Your task to perform on an android device: clear history in the chrome app Image 0: 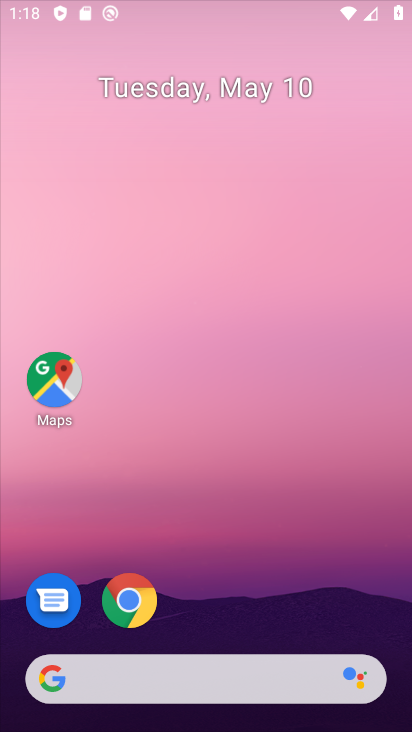
Step 0: drag from (268, 698) to (347, 222)
Your task to perform on an android device: clear history in the chrome app Image 1: 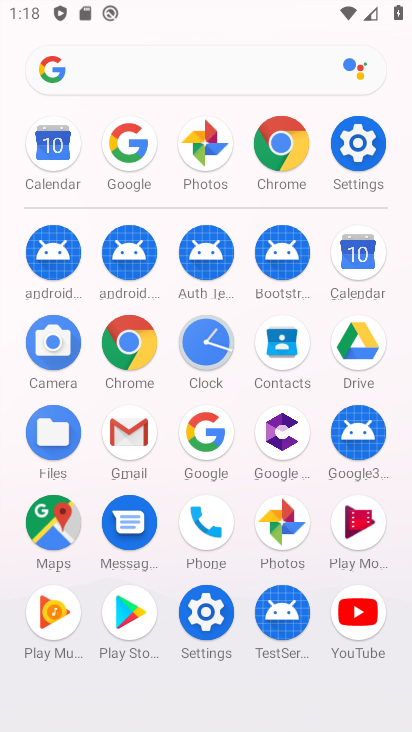
Step 1: click (297, 177)
Your task to perform on an android device: clear history in the chrome app Image 2: 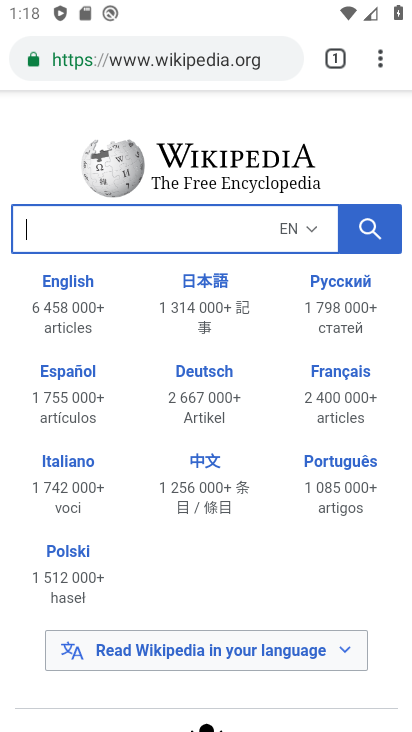
Step 2: click (384, 57)
Your task to perform on an android device: clear history in the chrome app Image 3: 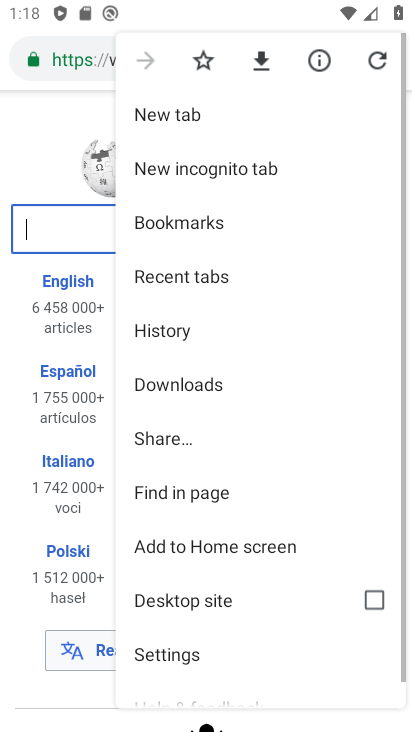
Step 3: click (188, 337)
Your task to perform on an android device: clear history in the chrome app Image 4: 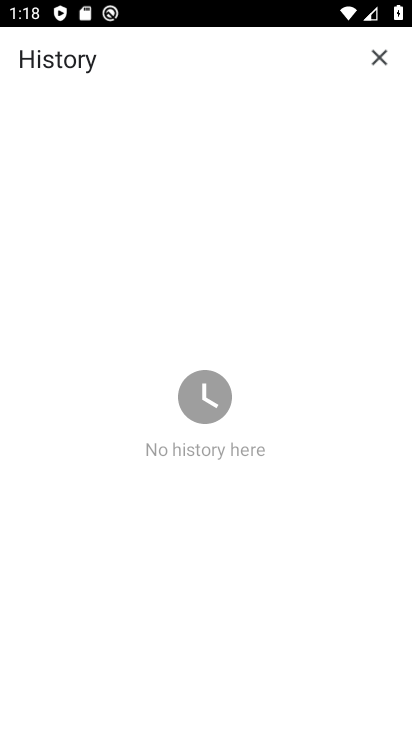
Step 4: task complete